Your task to perform on an android device: Search for sushi restaurants on Maps Image 0: 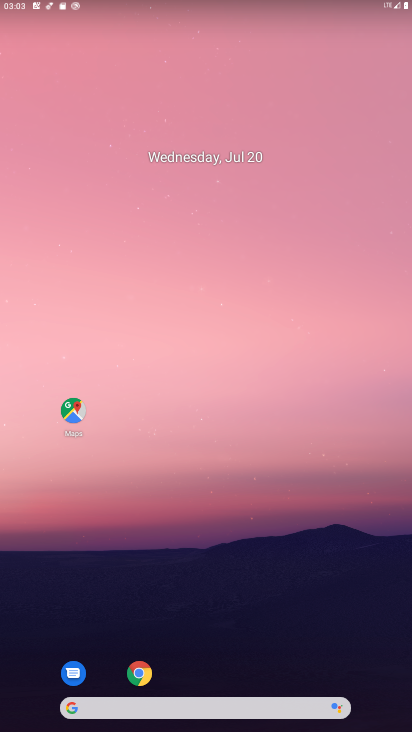
Step 0: drag from (212, 380) to (274, 0)
Your task to perform on an android device: Search for sushi restaurants on Maps Image 1: 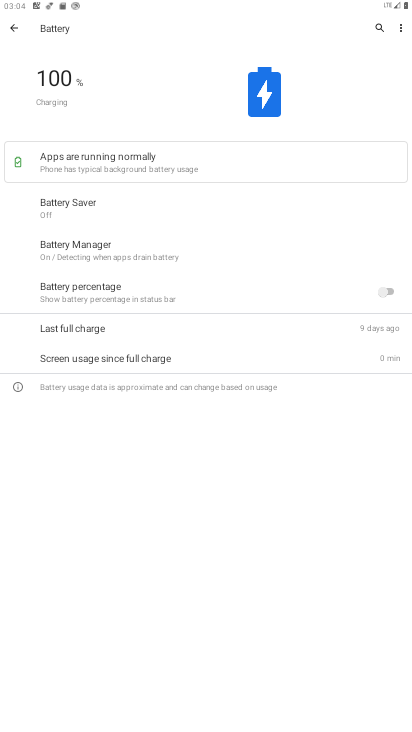
Step 1: press home button
Your task to perform on an android device: Search for sushi restaurants on Maps Image 2: 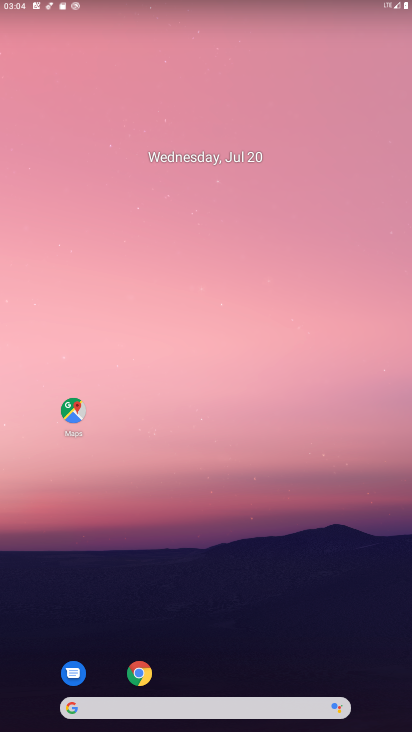
Step 2: click (72, 417)
Your task to perform on an android device: Search for sushi restaurants on Maps Image 3: 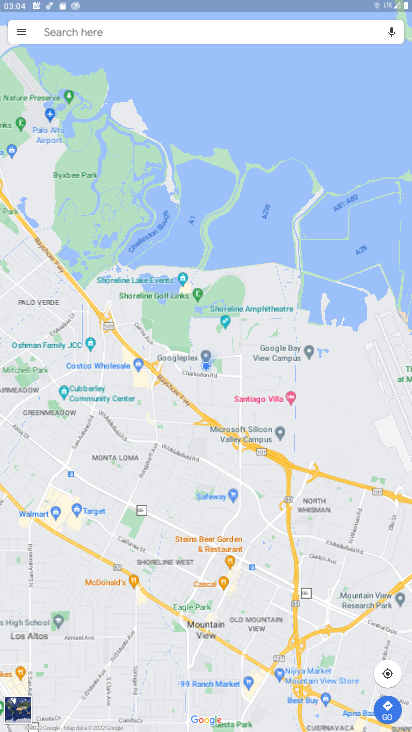
Step 3: click (135, 36)
Your task to perform on an android device: Search for sushi restaurants on Maps Image 4: 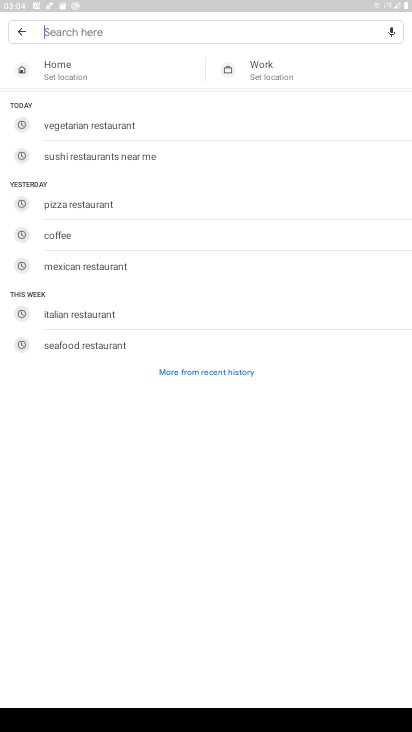
Step 4: type "Sushi restaurants"
Your task to perform on an android device: Search for sushi restaurants on Maps Image 5: 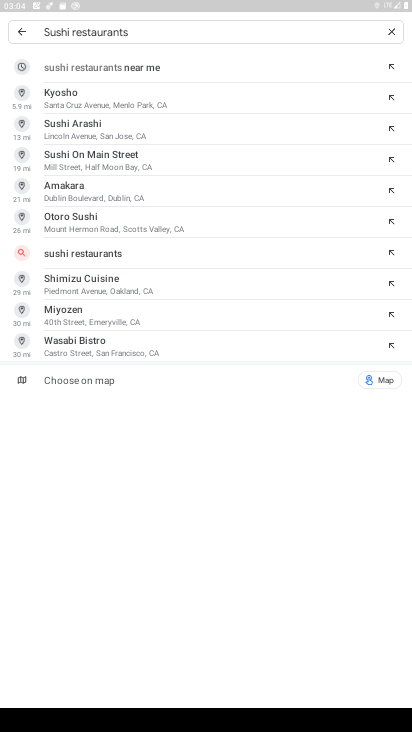
Step 5: click (90, 71)
Your task to perform on an android device: Search for sushi restaurants on Maps Image 6: 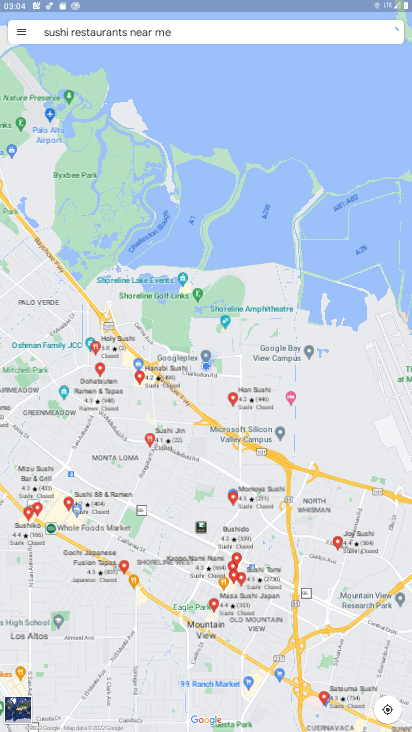
Step 6: task complete